Your task to perform on an android device: star an email in the gmail app Image 0: 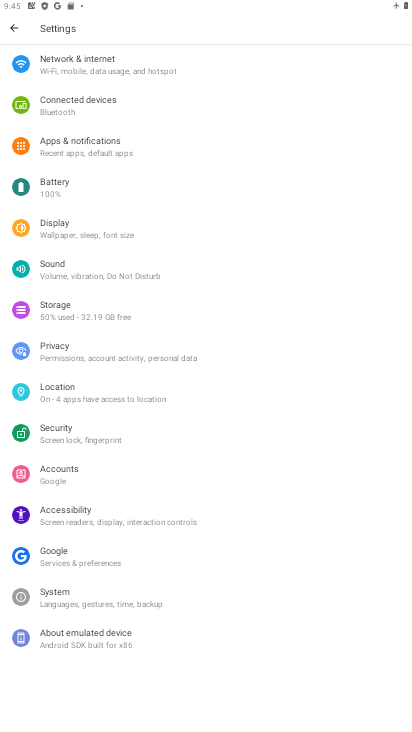
Step 0: press back button
Your task to perform on an android device: star an email in the gmail app Image 1: 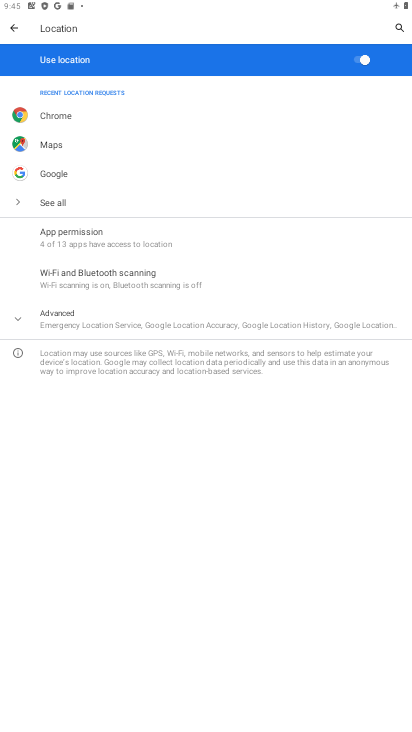
Step 1: click (11, 29)
Your task to perform on an android device: star an email in the gmail app Image 2: 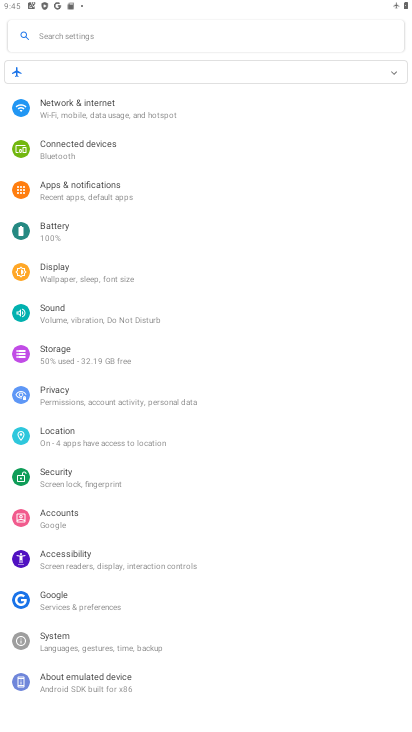
Step 2: task complete